Your task to perform on an android device: What's on my calendar tomorrow? Image 0: 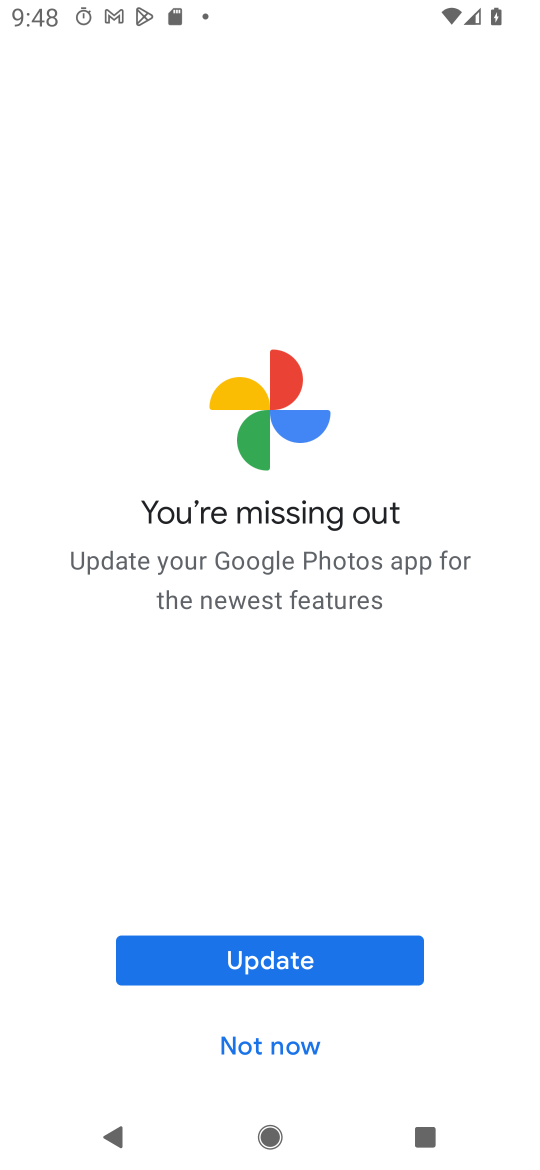
Step 0: press home button
Your task to perform on an android device: What's on my calendar tomorrow? Image 1: 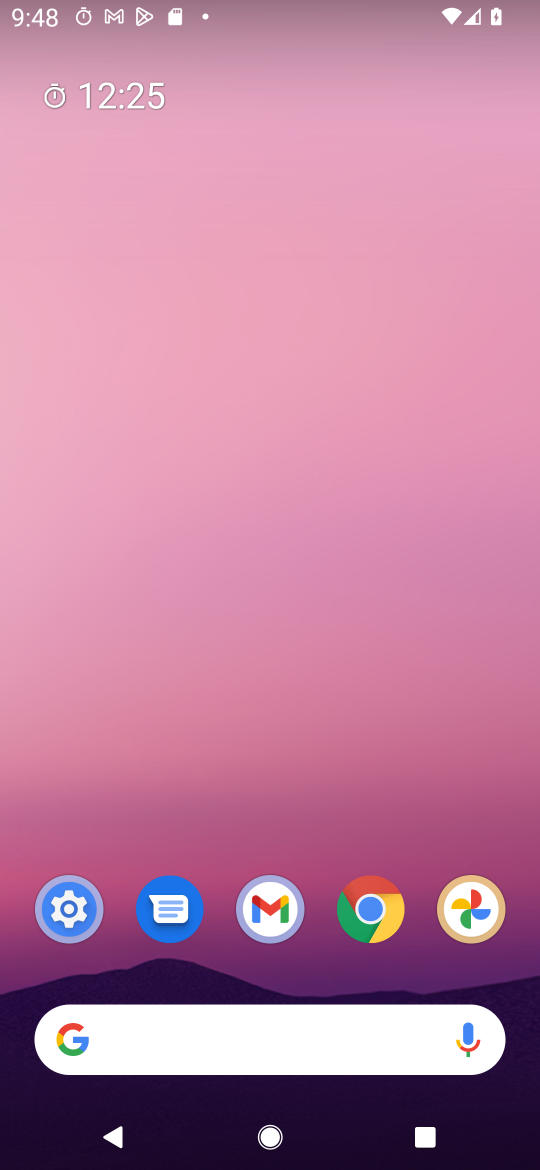
Step 1: drag from (419, 745) to (419, 283)
Your task to perform on an android device: What's on my calendar tomorrow? Image 2: 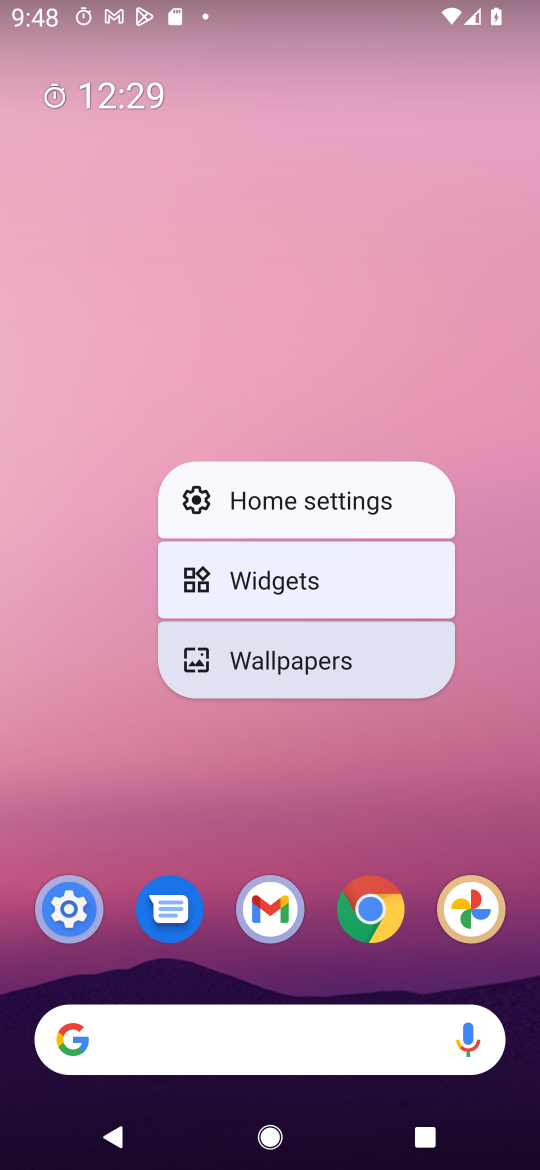
Step 2: click (463, 737)
Your task to perform on an android device: What's on my calendar tomorrow? Image 3: 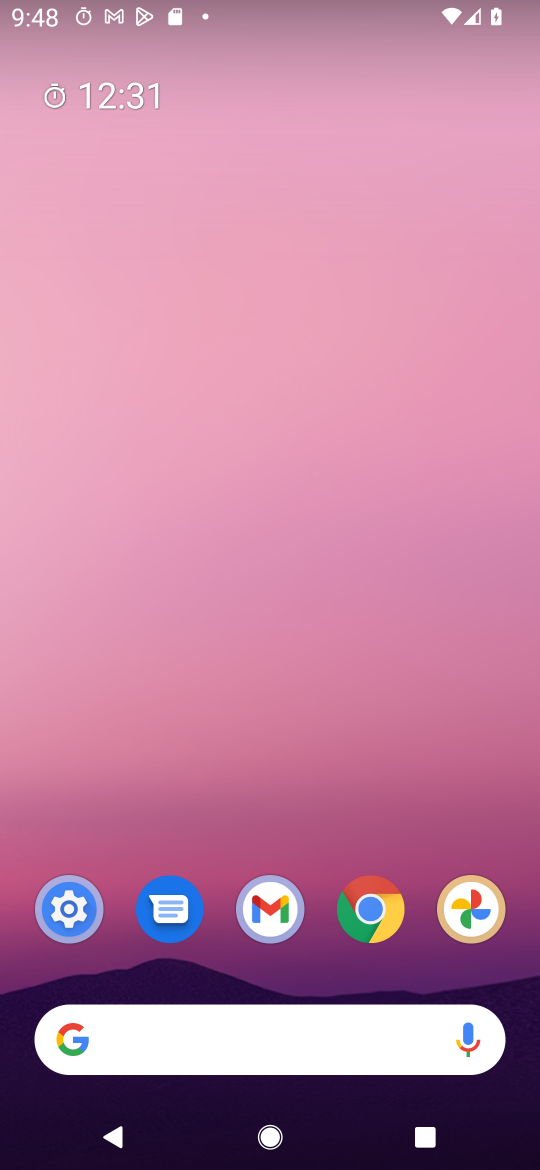
Step 3: drag from (432, 801) to (415, 182)
Your task to perform on an android device: What's on my calendar tomorrow? Image 4: 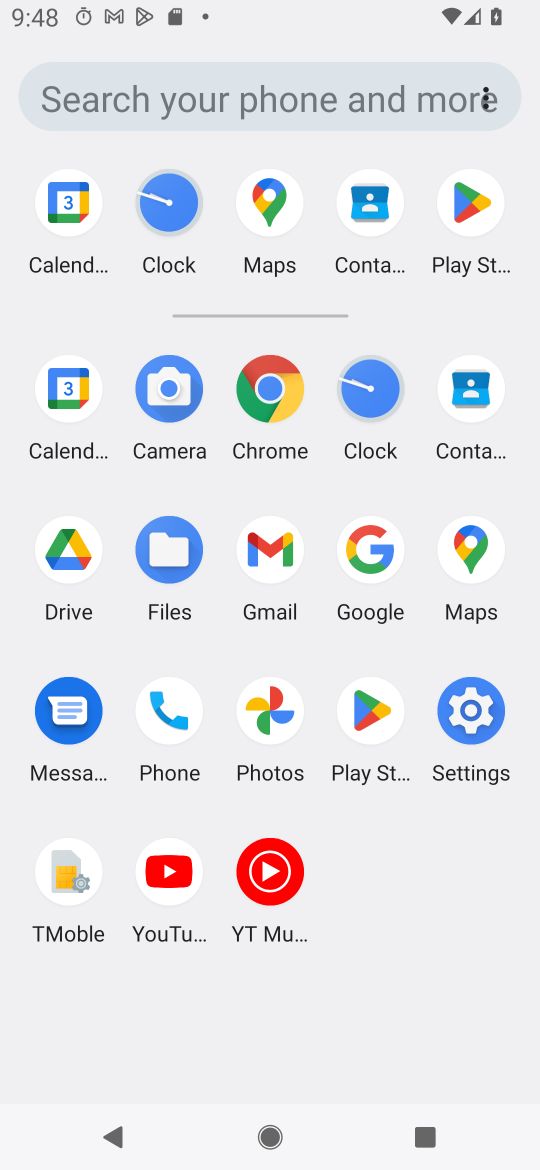
Step 4: click (79, 392)
Your task to perform on an android device: What's on my calendar tomorrow? Image 5: 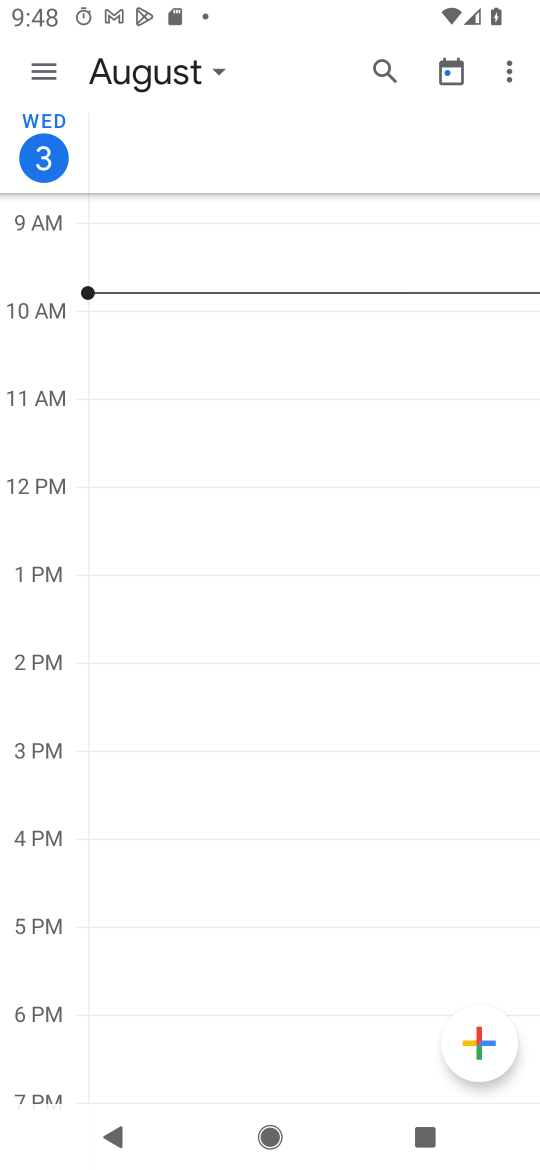
Step 5: click (41, 66)
Your task to perform on an android device: What's on my calendar tomorrow? Image 6: 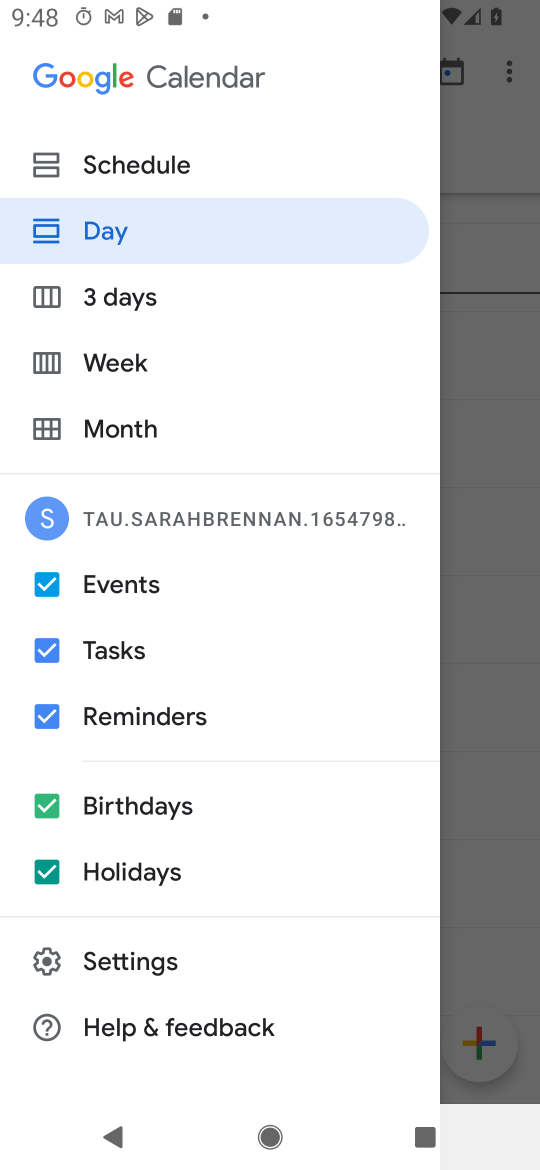
Step 6: click (149, 159)
Your task to perform on an android device: What's on my calendar tomorrow? Image 7: 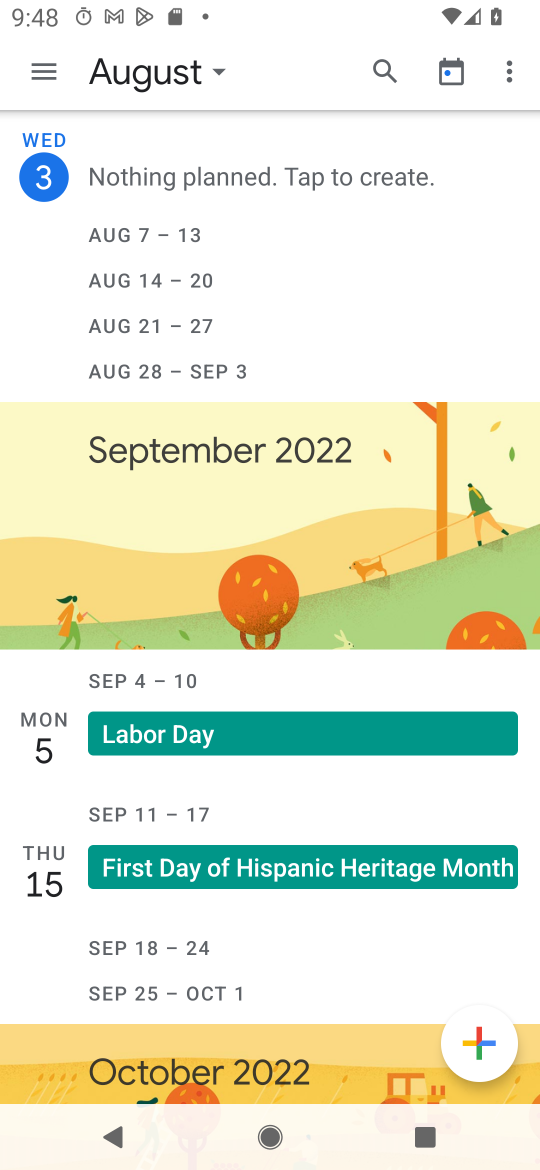
Step 7: click (217, 74)
Your task to perform on an android device: What's on my calendar tomorrow? Image 8: 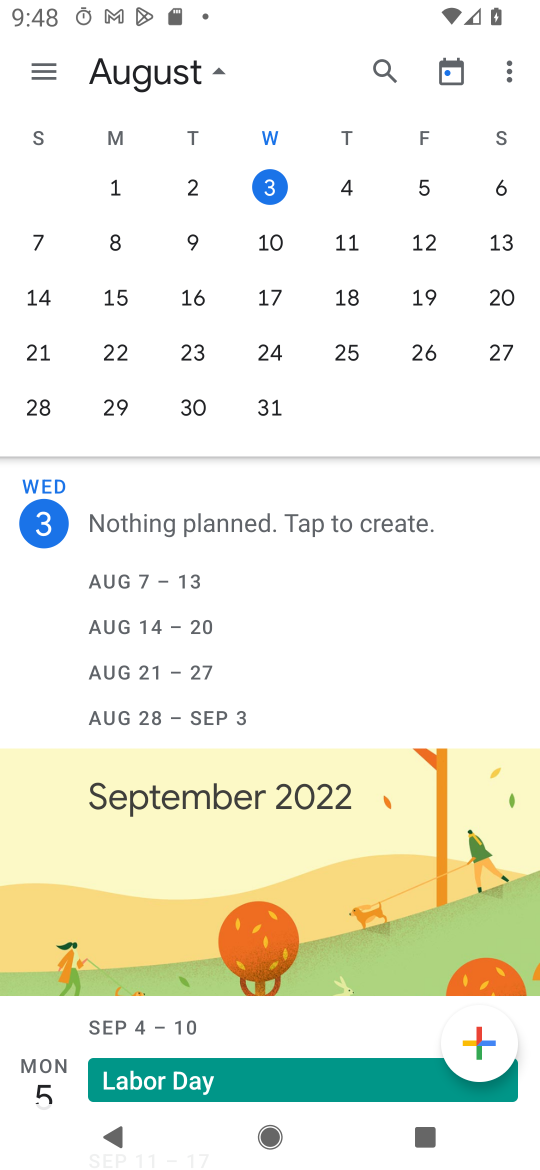
Step 8: click (353, 182)
Your task to perform on an android device: What's on my calendar tomorrow? Image 9: 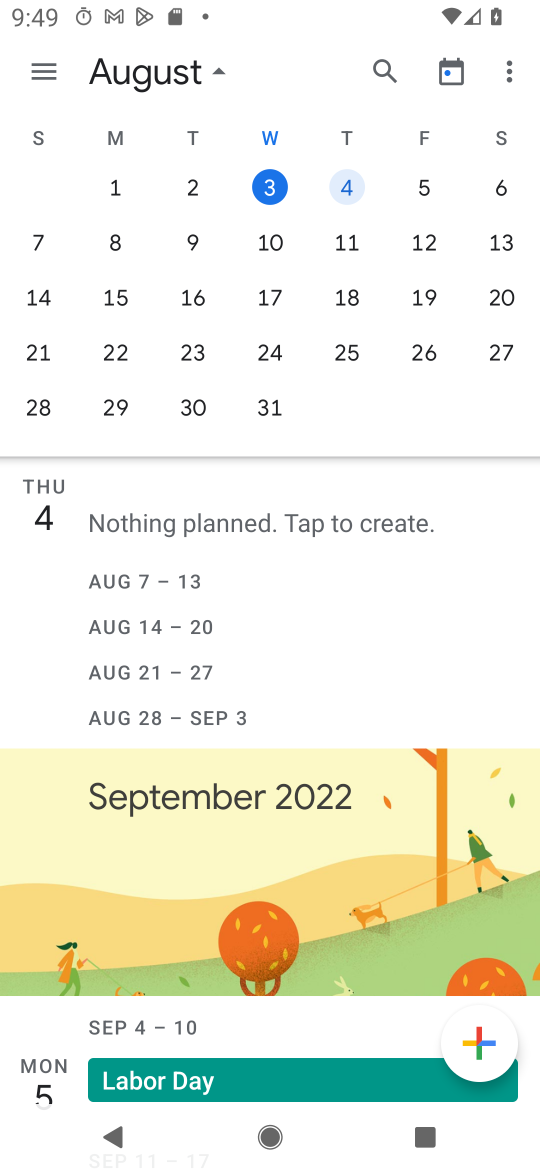
Step 9: task complete